Your task to perform on an android device: turn off wifi Image 0: 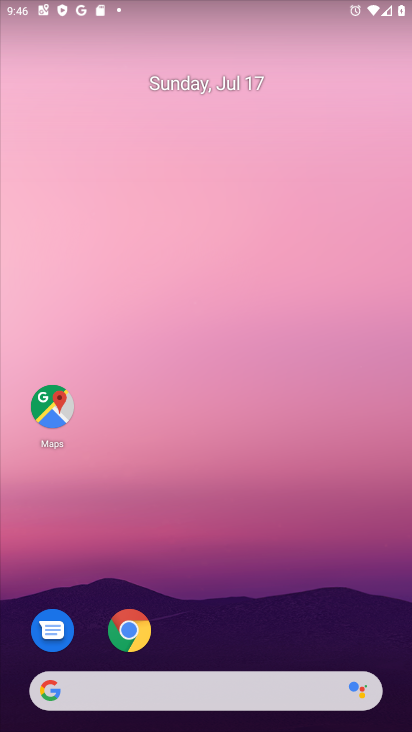
Step 0: drag from (226, 8) to (249, 449)
Your task to perform on an android device: turn off wifi Image 1: 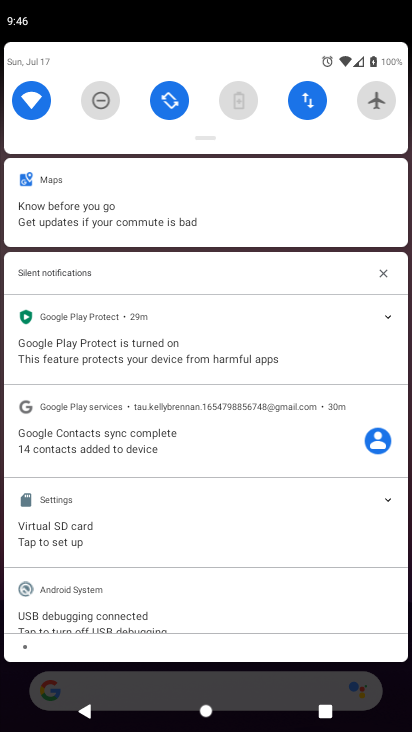
Step 1: click (27, 99)
Your task to perform on an android device: turn off wifi Image 2: 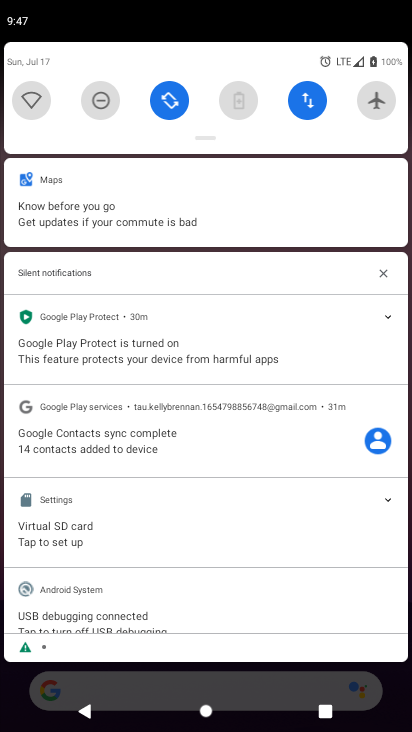
Step 2: task complete